Your task to perform on an android device: install app "Google Home" Image 0: 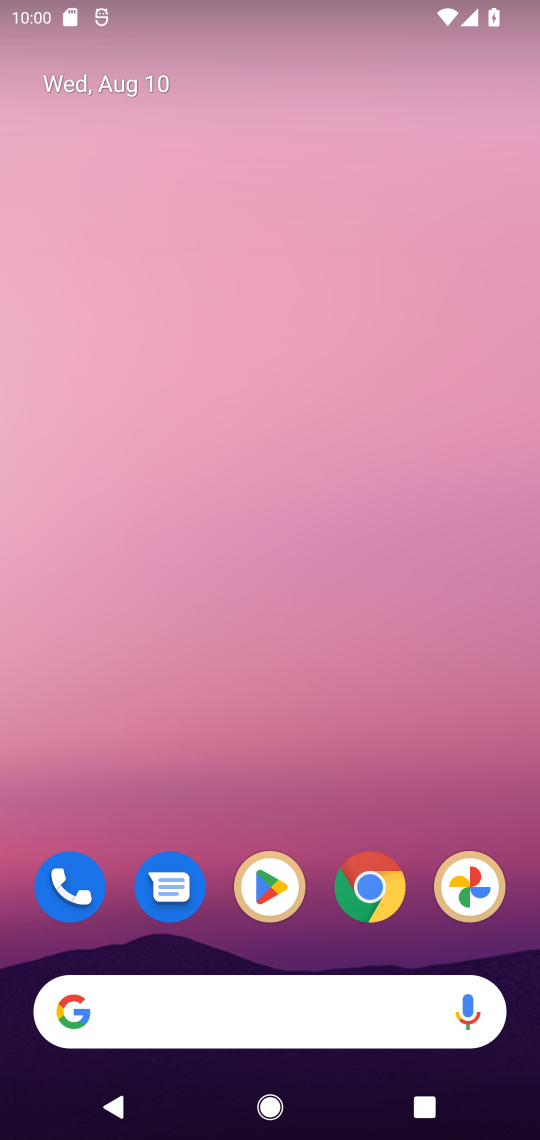
Step 0: click (261, 922)
Your task to perform on an android device: install app "Google Home" Image 1: 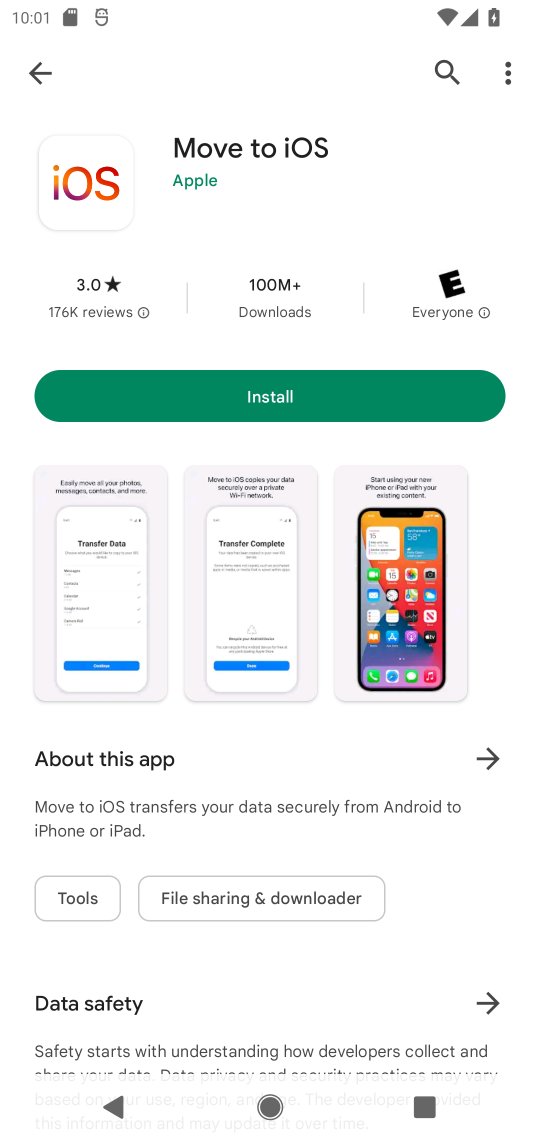
Step 1: click (441, 66)
Your task to perform on an android device: install app "Google Home" Image 2: 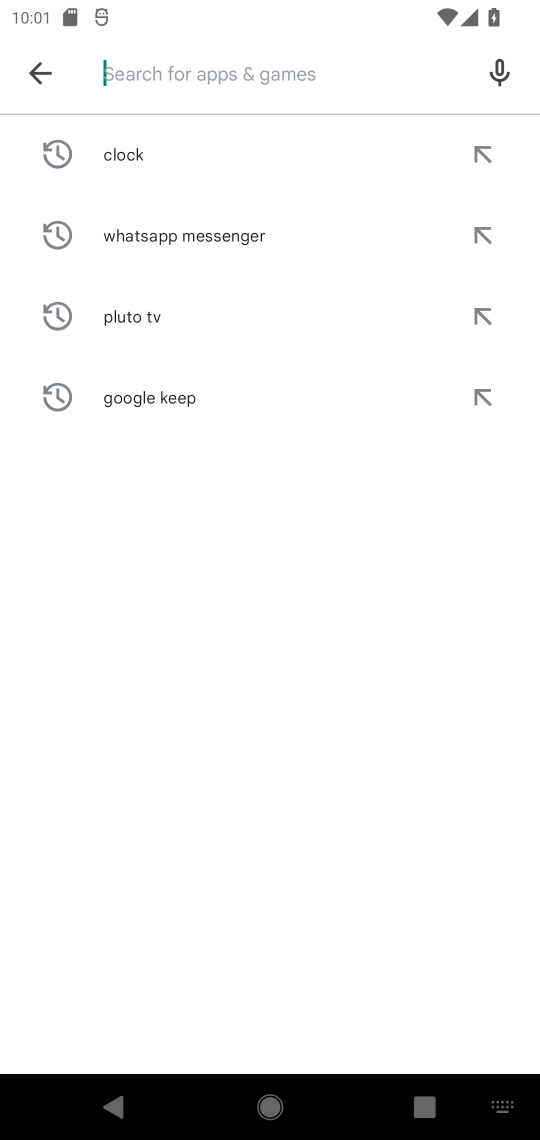
Step 2: type "Google Home"
Your task to perform on an android device: install app "Google Home" Image 3: 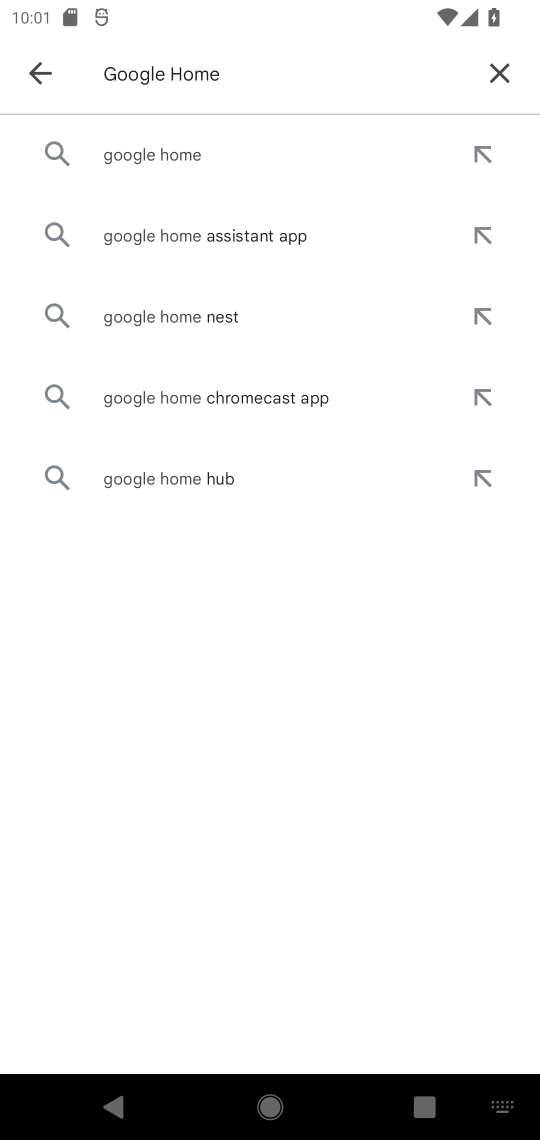
Step 3: click (124, 150)
Your task to perform on an android device: install app "Google Home" Image 4: 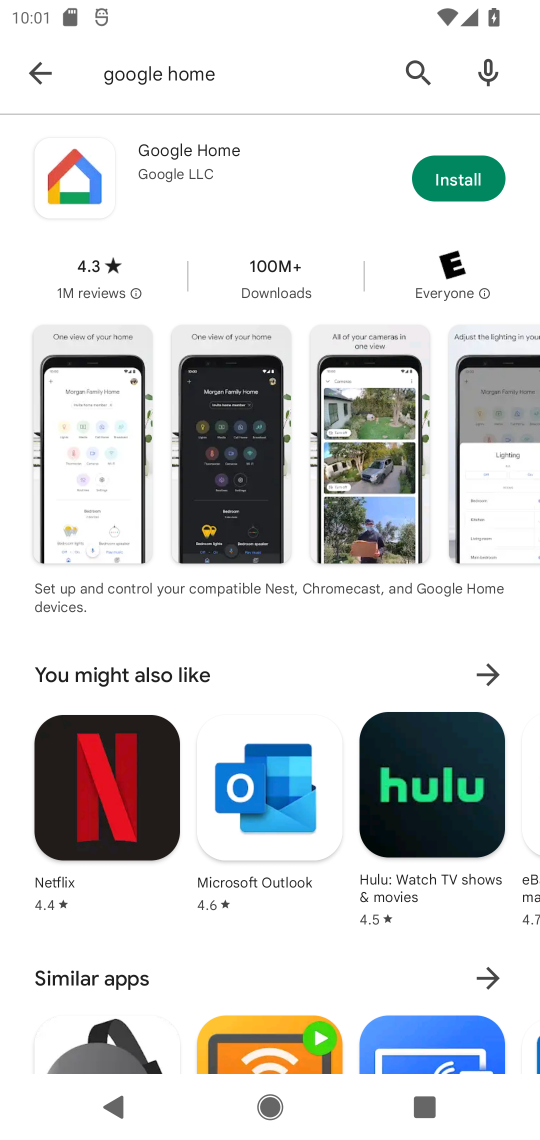
Step 4: click (453, 184)
Your task to perform on an android device: install app "Google Home" Image 5: 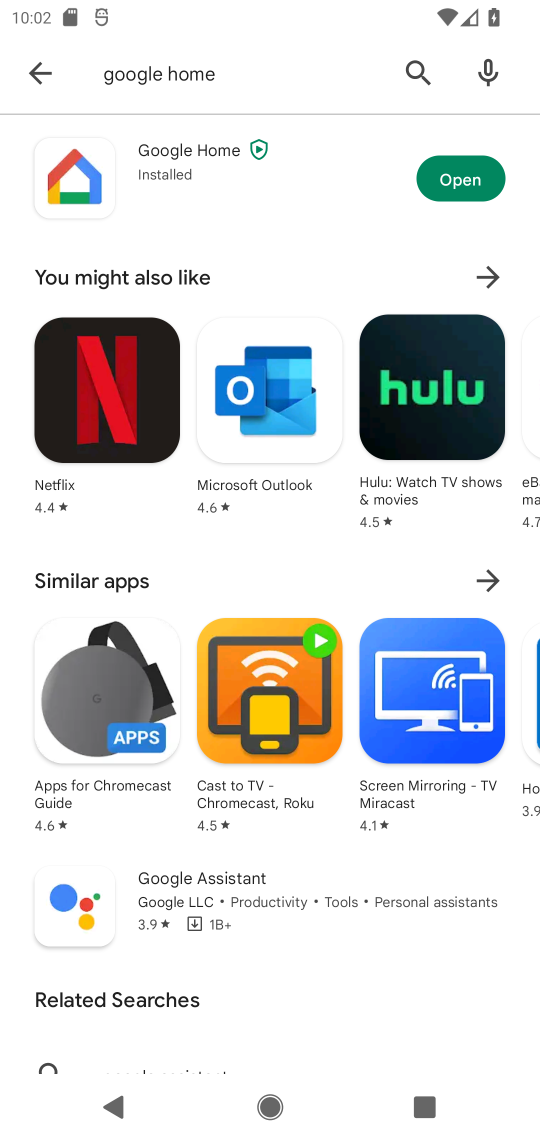
Step 5: task complete